Your task to perform on an android device: Show me recent news Image 0: 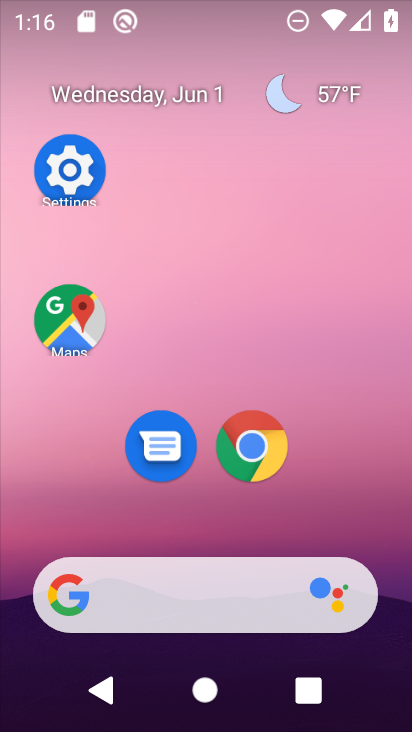
Step 0: drag from (268, 525) to (289, 93)
Your task to perform on an android device: Show me recent news Image 1: 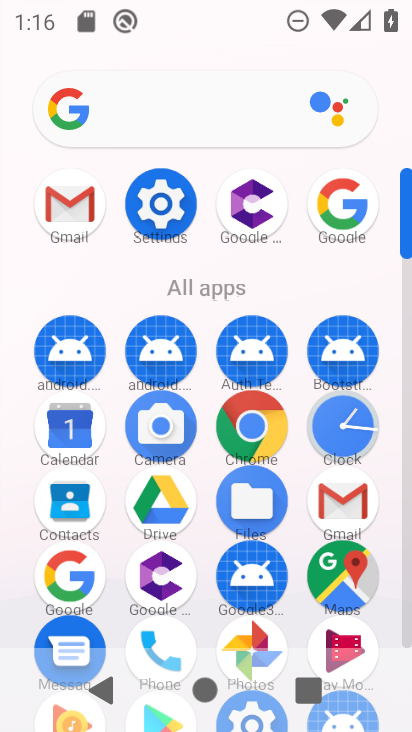
Step 1: click (92, 575)
Your task to perform on an android device: Show me recent news Image 2: 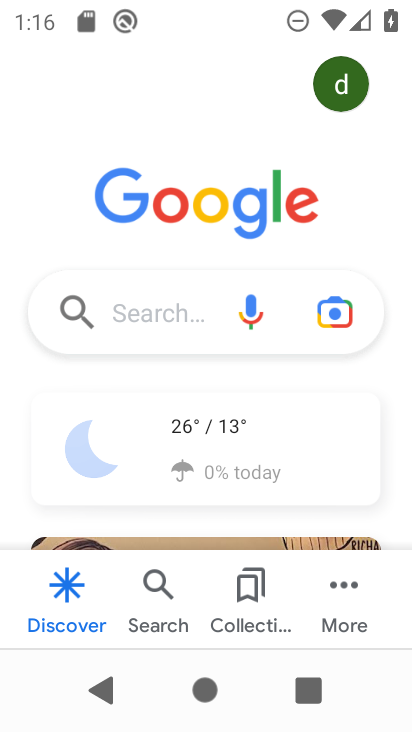
Step 2: click (85, 307)
Your task to perform on an android device: Show me recent news Image 3: 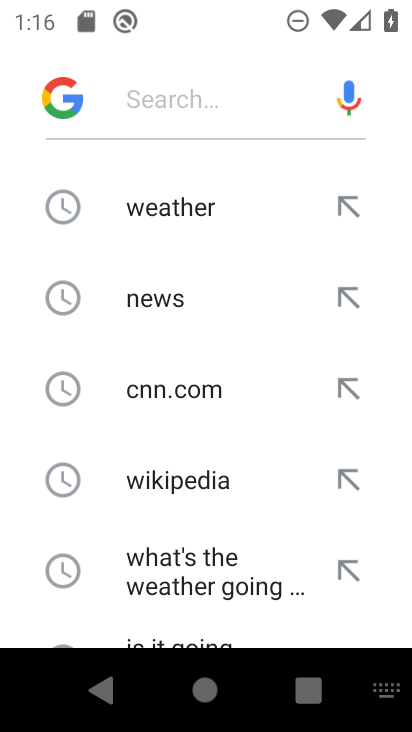
Step 3: drag from (196, 450) to (221, 88)
Your task to perform on an android device: Show me recent news Image 4: 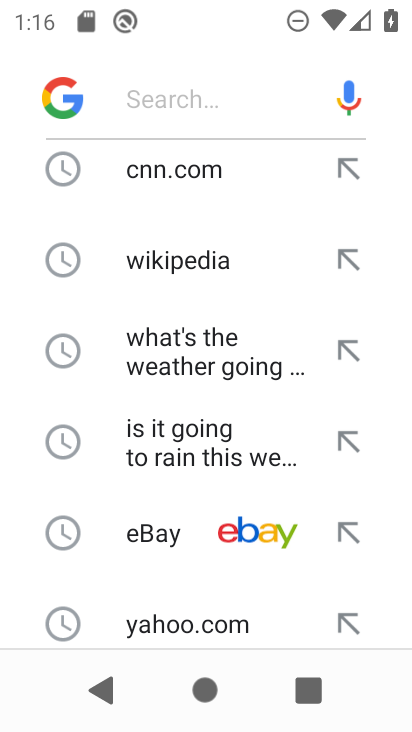
Step 4: drag from (198, 523) to (178, 157)
Your task to perform on an android device: Show me recent news Image 5: 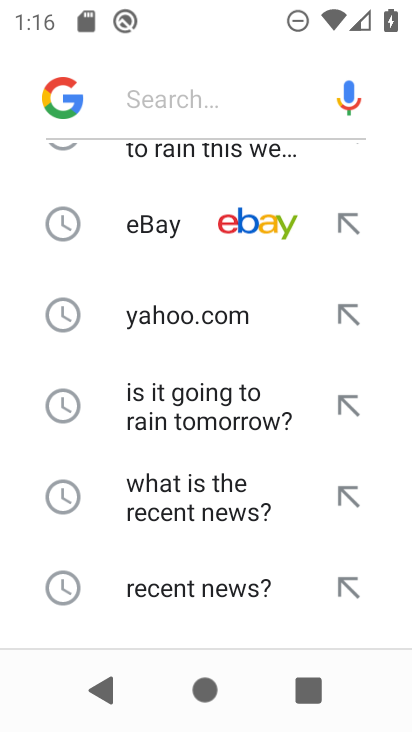
Step 5: click (186, 584)
Your task to perform on an android device: Show me recent news Image 6: 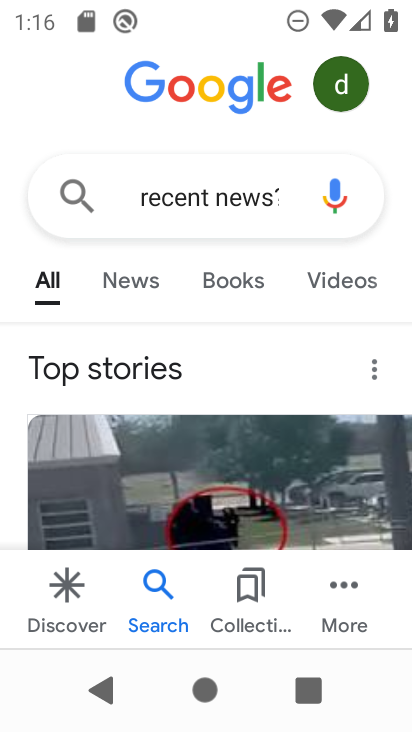
Step 6: task complete